Your task to perform on an android device: Open notification settings Image 0: 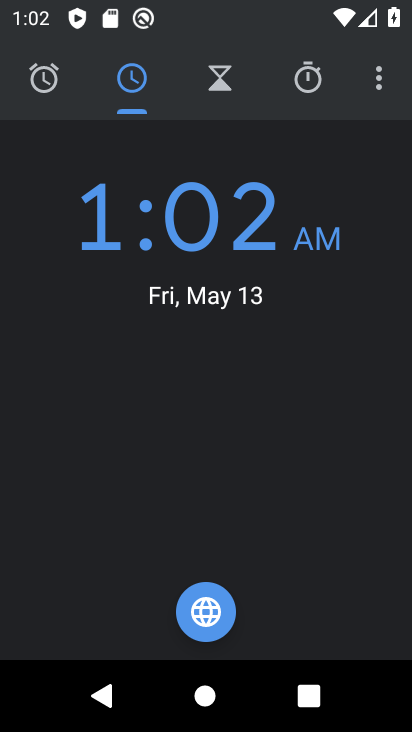
Step 0: press home button
Your task to perform on an android device: Open notification settings Image 1: 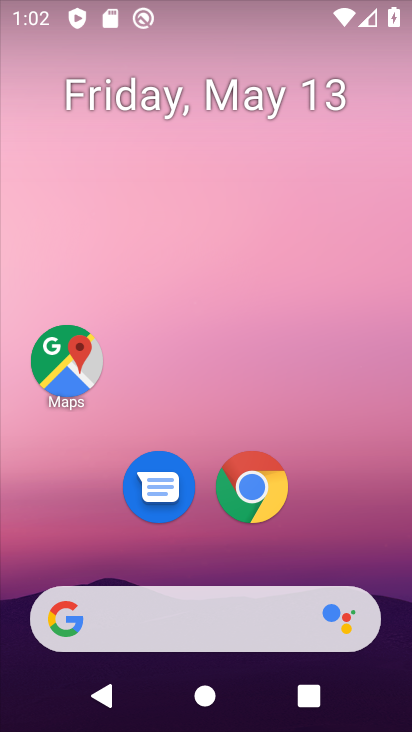
Step 1: drag from (349, 512) to (326, 147)
Your task to perform on an android device: Open notification settings Image 2: 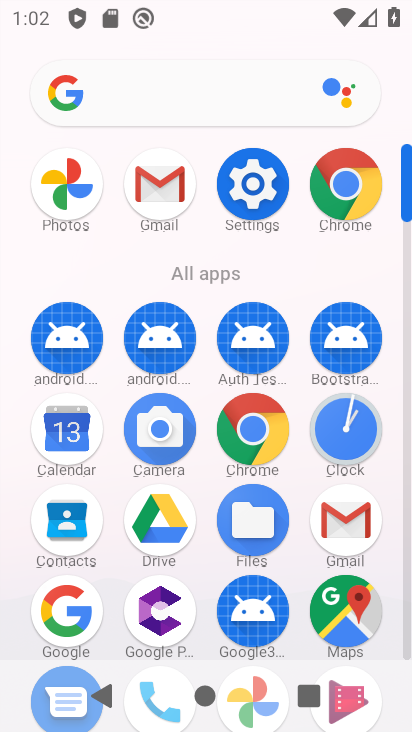
Step 2: click (252, 181)
Your task to perform on an android device: Open notification settings Image 3: 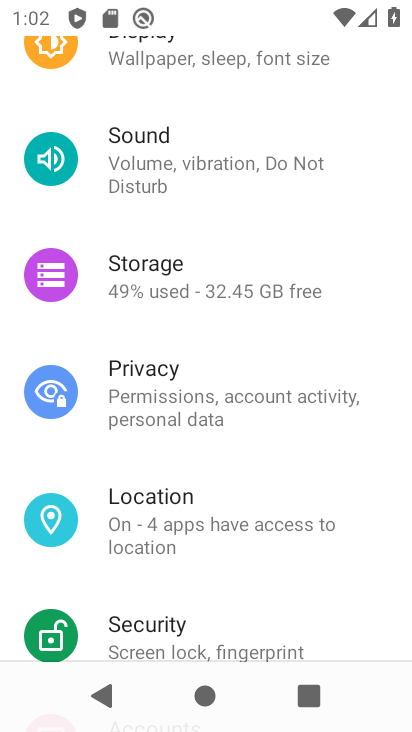
Step 3: drag from (253, 182) to (268, 557)
Your task to perform on an android device: Open notification settings Image 4: 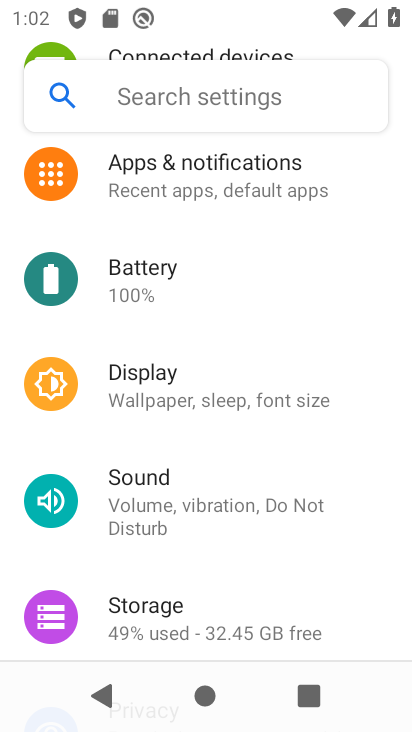
Step 4: drag from (231, 343) to (248, 573)
Your task to perform on an android device: Open notification settings Image 5: 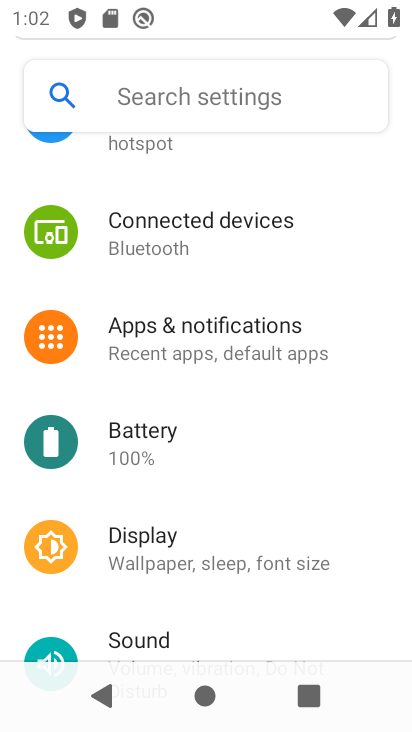
Step 5: click (208, 343)
Your task to perform on an android device: Open notification settings Image 6: 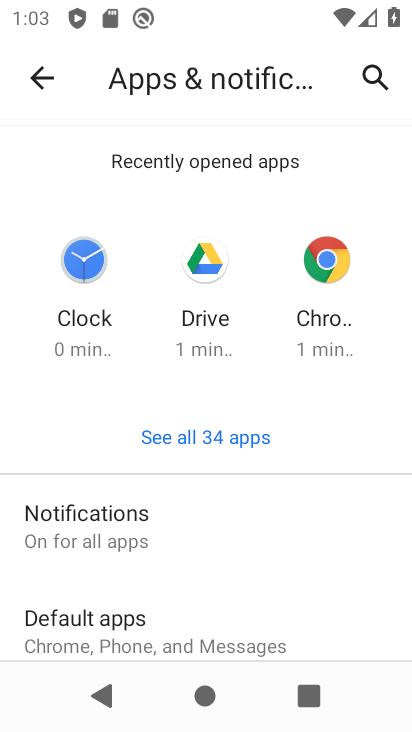
Step 6: click (121, 527)
Your task to perform on an android device: Open notification settings Image 7: 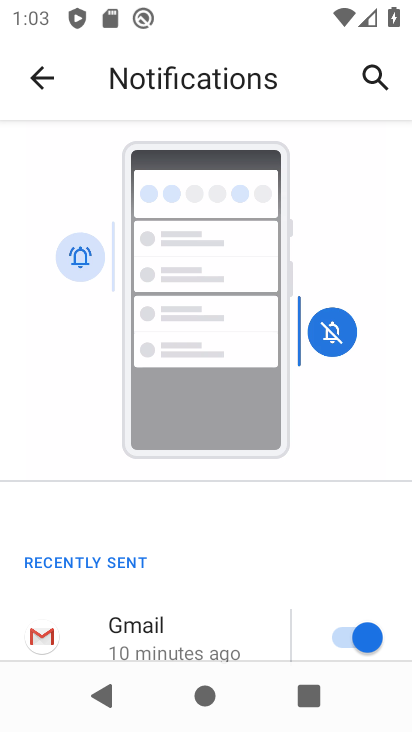
Step 7: task complete